Your task to perform on an android device: Show me recent news Image 0: 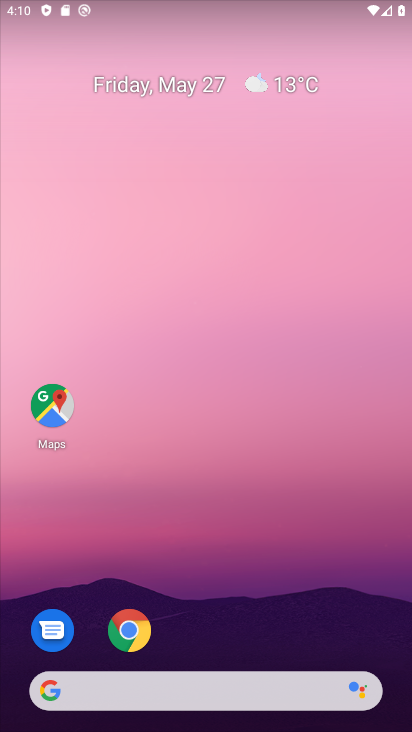
Step 0: drag from (224, 634) to (274, 80)
Your task to perform on an android device: Show me recent news Image 1: 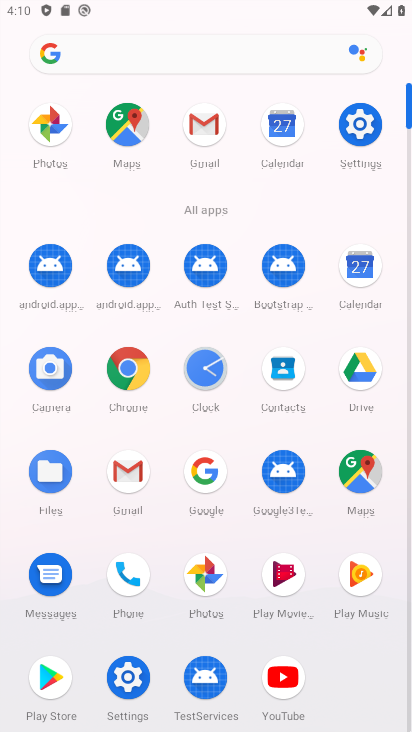
Step 1: click (122, 46)
Your task to perform on an android device: Show me recent news Image 2: 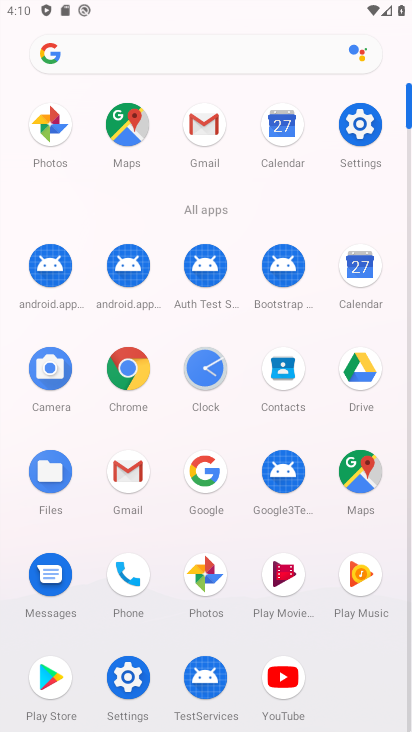
Step 2: click (125, 45)
Your task to perform on an android device: Show me recent news Image 3: 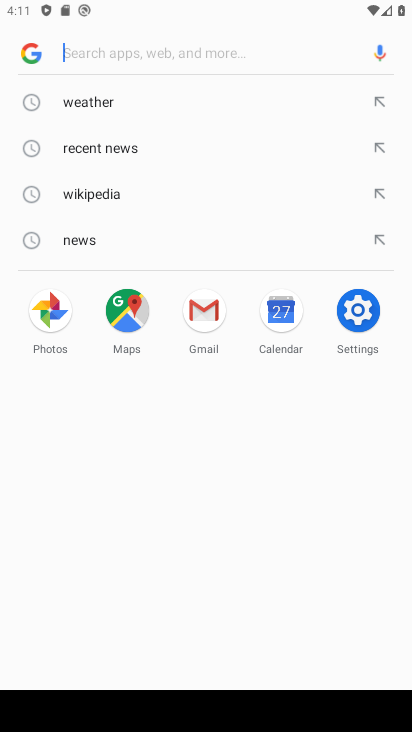
Step 3: click (91, 151)
Your task to perform on an android device: Show me recent news Image 4: 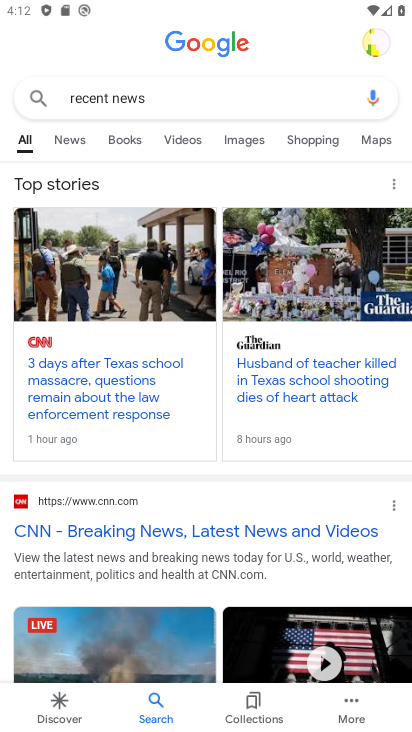
Step 4: task complete